Your task to perform on an android device: star an email in the gmail app Image 0: 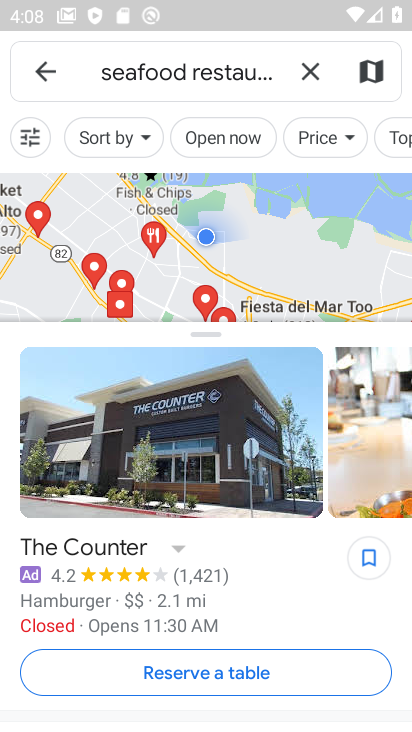
Step 0: press home button
Your task to perform on an android device: star an email in the gmail app Image 1: 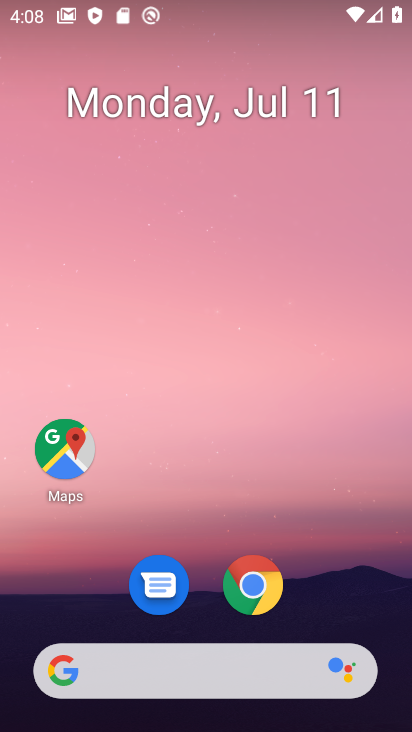
Step 1: drag from (210, 535) to (224, 5)
Your task to perform on an android device: star an email in the gmail app Image 2: 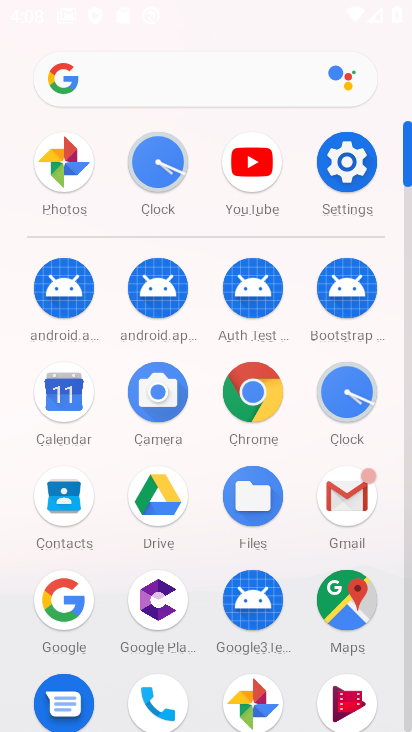
Step 2: click (353, 492)
Your task to perform on an android device: star an email in the gmail app Image 3: 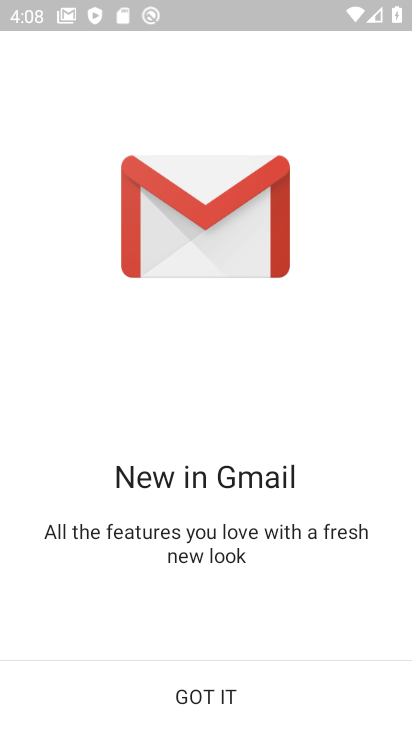
Step 3: click (216, 698)
Your task to perform on an android device: star an email in the gmail app Image 4: 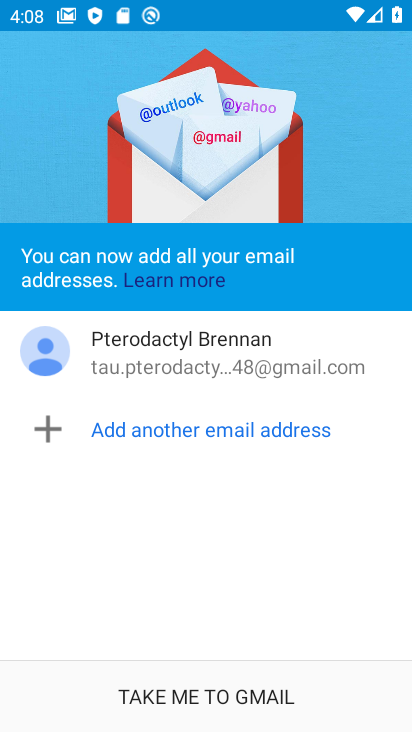
Step 4: click (216, 693)
Your task to perform on an android device: star an email in the gmail app Image 5: 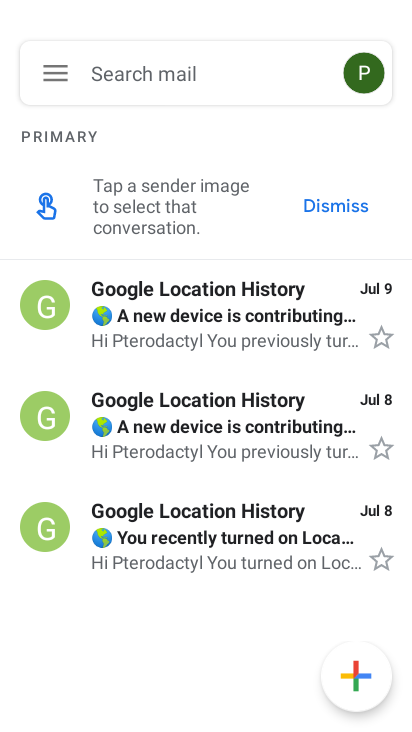
Step 5: click (252, 325)
Your task to perform on an android device: star an email in the gmail app Image 6: 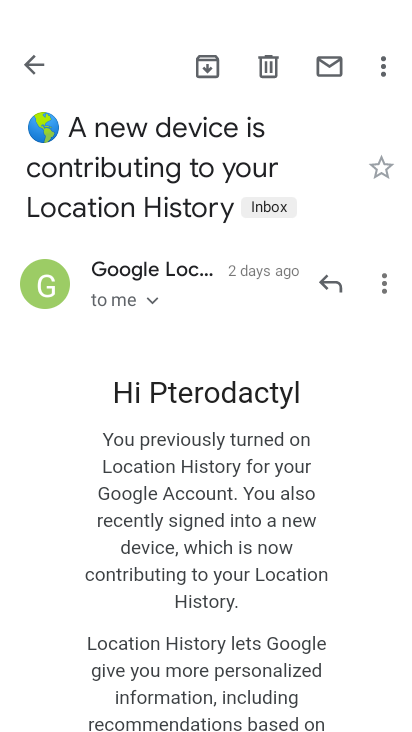
Step 6: click (380, 165)
Your task to perform on an android device: star an email in the gmail app Image 7: 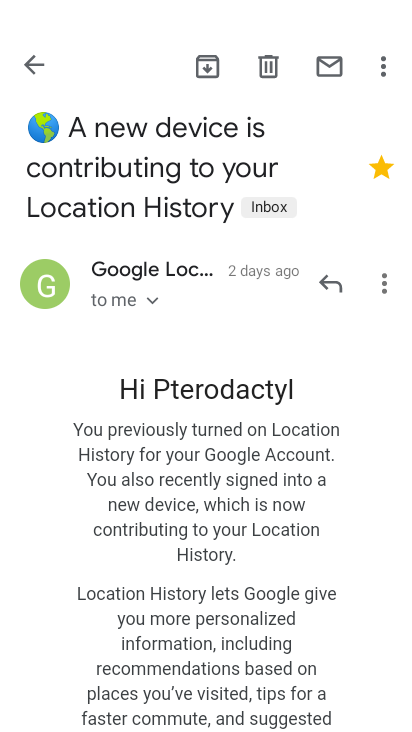
Step 7: click (25, 57)
Your task to perform on an android device: star an email in the gmail app Image 8: 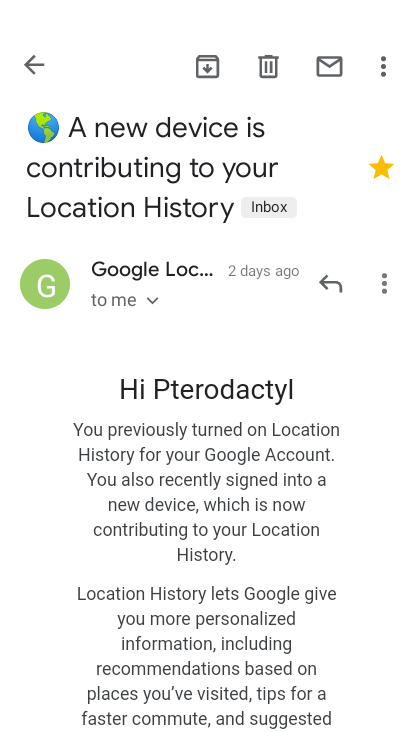
Step 8: click (38, 64)
Your task to perform on an android device: star an email in the gmail app Image 9: 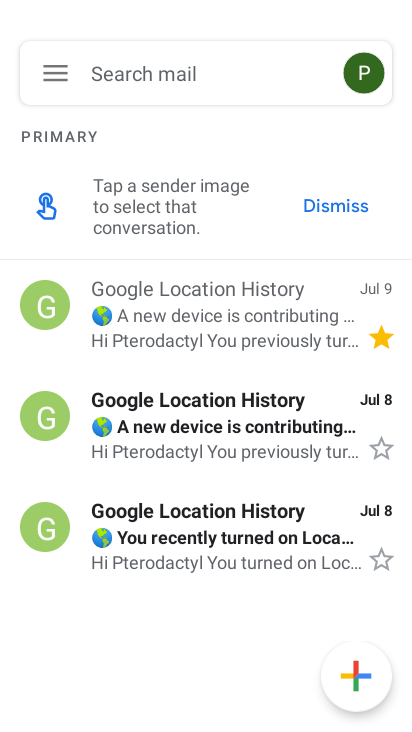
Step 9: task complete